Your task to perform on an android device: Check the weather Image 0: 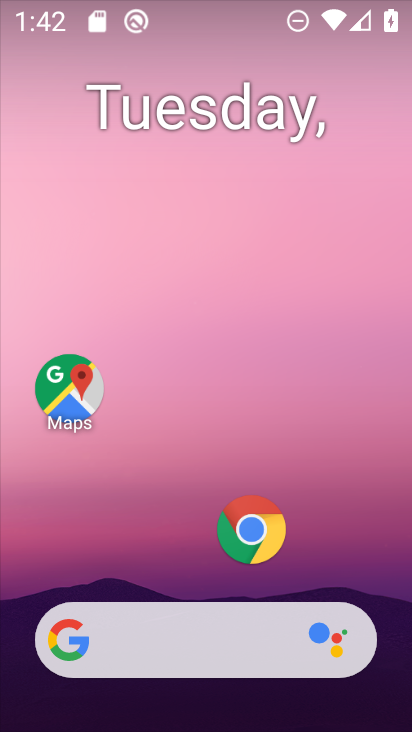
Step 0: drag from (297, 672) to (295, 262)
Your task to perform on an android device: Check the weather Image 1: 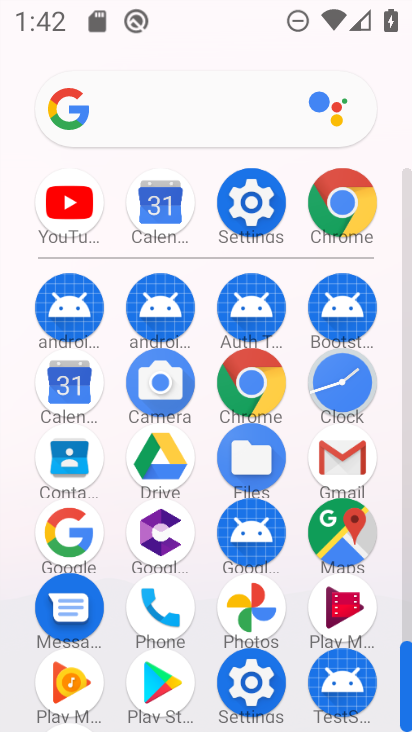
Step 1: click (186, 113)
Your task to perform on an android device: Check the weather Image 2: 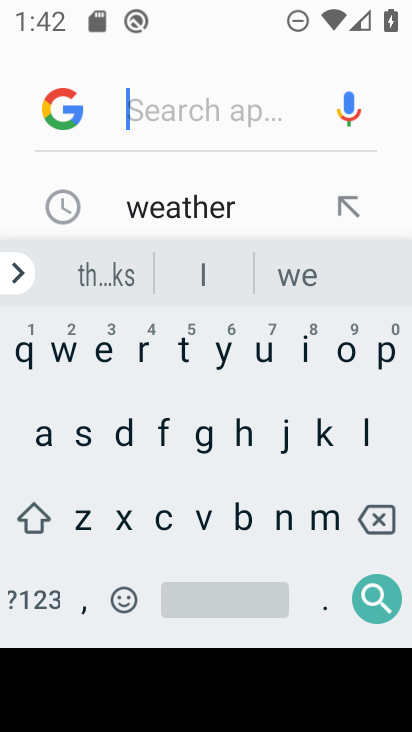
Step 2: click (187, 188)
Your task to perform on an android device: Check the weather Image 3: 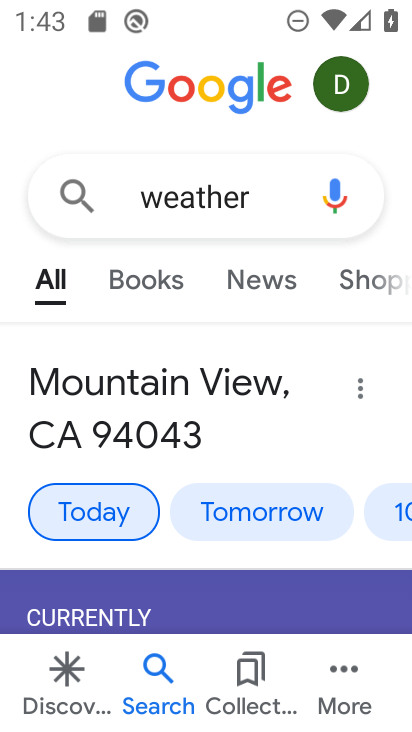
Step 3: task complete